Your task to perform on an android device: What's the weather today? Image 0: 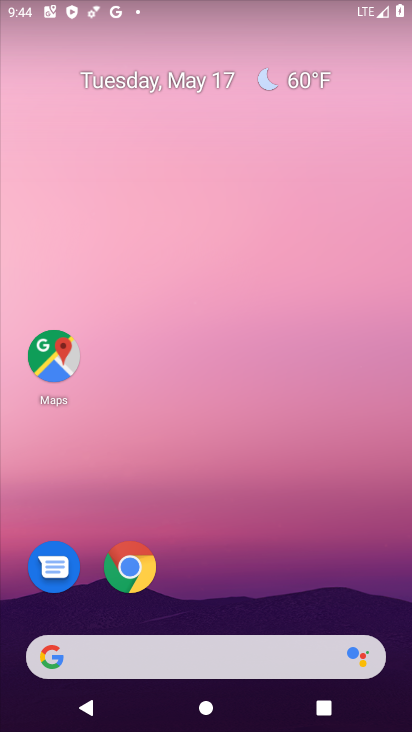
Step 0: drag from (299, 602) to (248, 1)
Your task to perform on an android device: What's the weather today? Image 1: 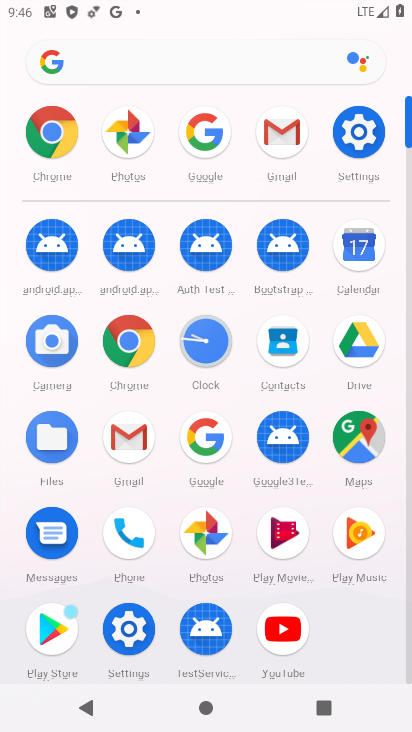
Step 1: click (207, 457)
Your task to perform on an android device: What's the weather today? Image 2: 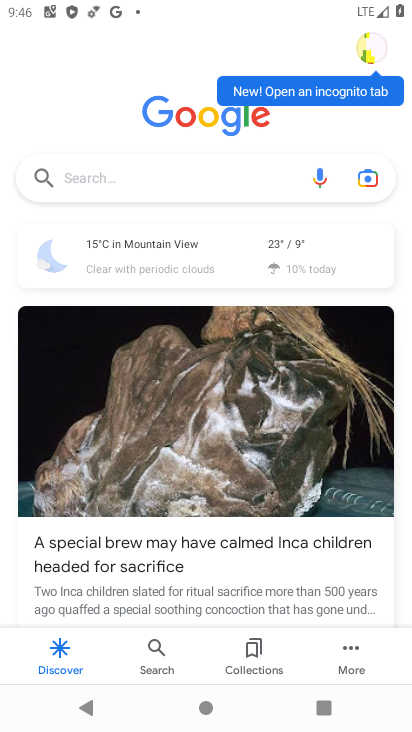
Step 2: click (148, 177)
Your task to perform on an android device: What's the weather today? Image 3: 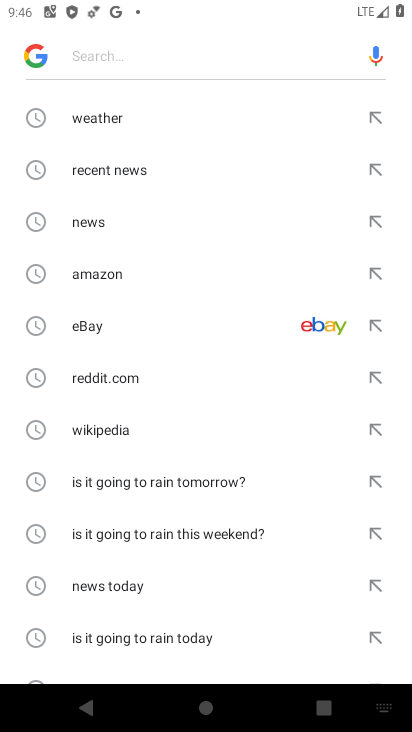
Step 3: drag from (178, 556) to (199, 455)
Your task to perform on an android device: What's the weather today? Image 4: 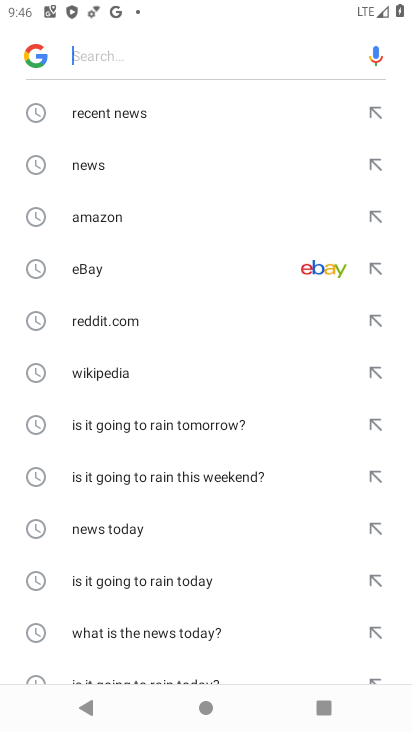
Step 4: drag from (194, 605) to (172, 263)
Your task to perform on an android device: What's the weather today? Image 5: 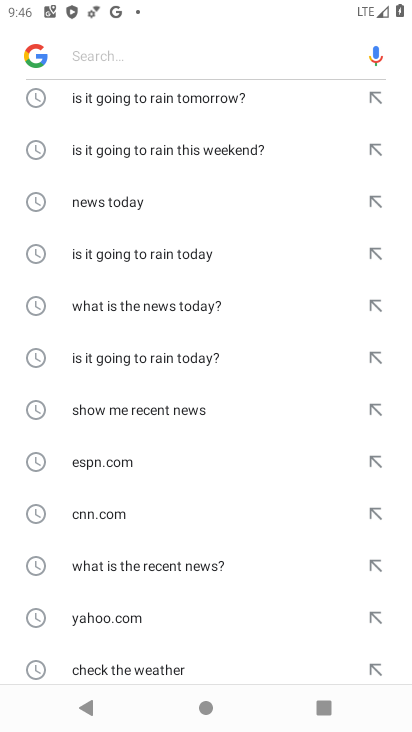
Step 5: drag from (185, 649) to (230, 328)
Your task to perform on an android device: What's the weather today? Image 6: 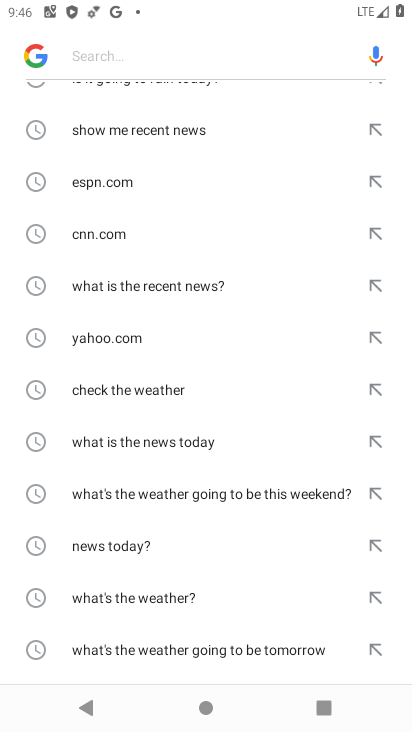
Step 6: drag from (199, 608) to (237, 290)
Your task to perform on an android device: What's the weather today? Image 7: 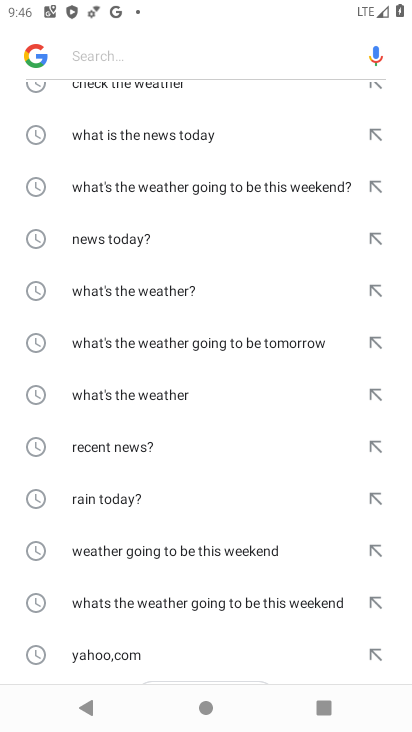
Step 7: drag from (224, 553) to (263, 264)
Your task to perform on an android device: What's the weather today? Image 8: 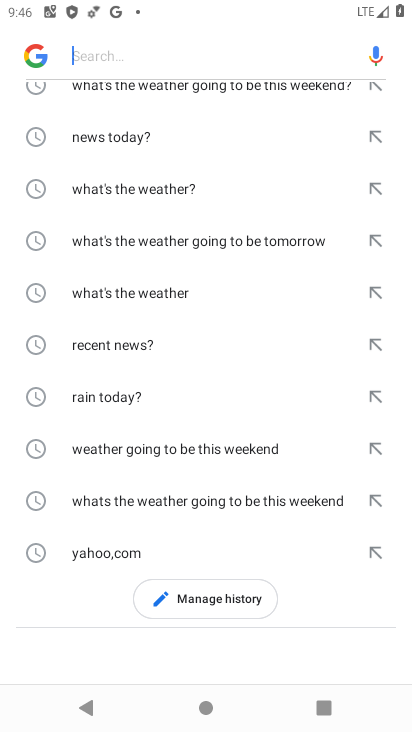
Step 8: click (182, 185)
Your task to perform on an android device: What's the weather today? Image 9: 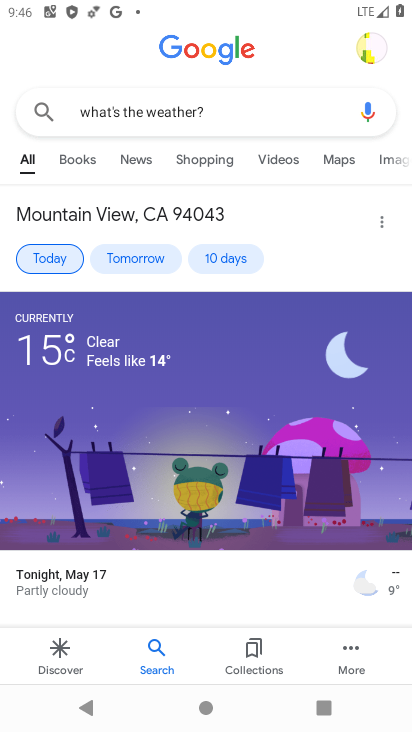
Step 9: task complete